Your task to perform on an android device: turn off location history Image 0: 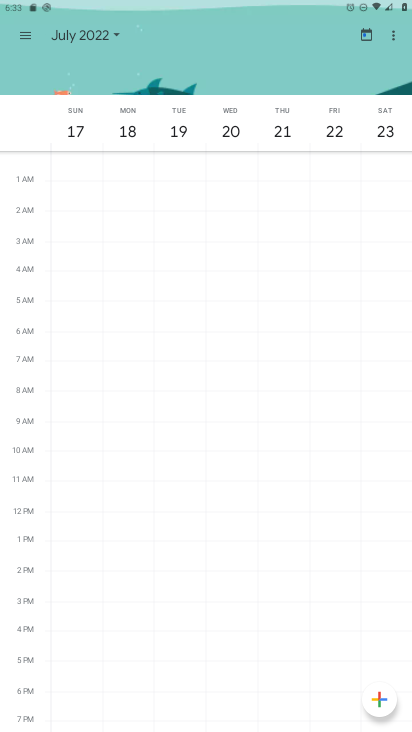
Step 0: press home button
Your task to perform on an android device: turn off location history Image 1: 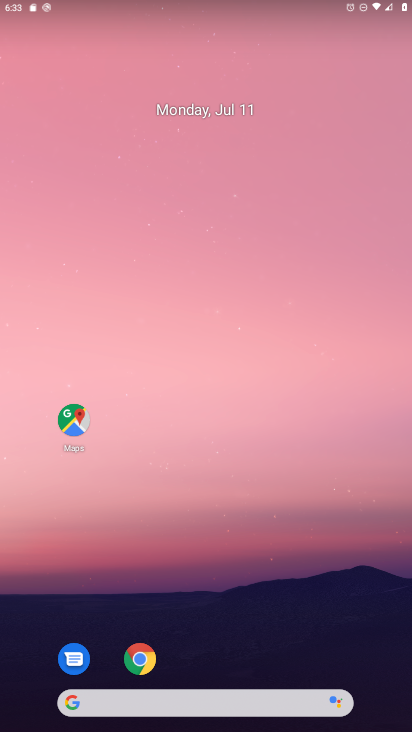
Step 1: click (73, 419)
Your task to perform on an android device: turn off location history Image 2: 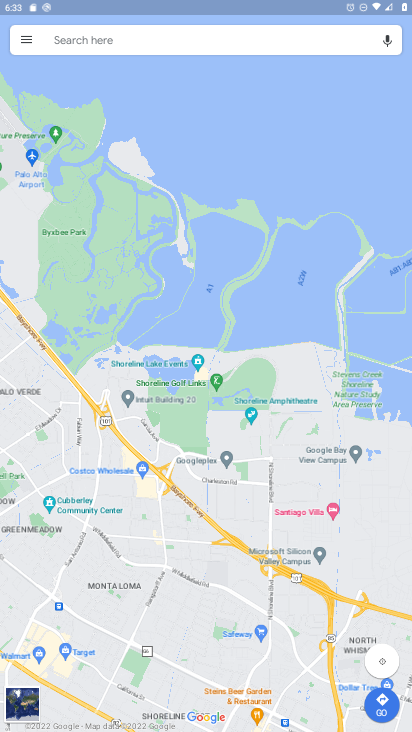
Step 2: click (25, 41)
Your task to perform on an android device: turn off location history Image 3: 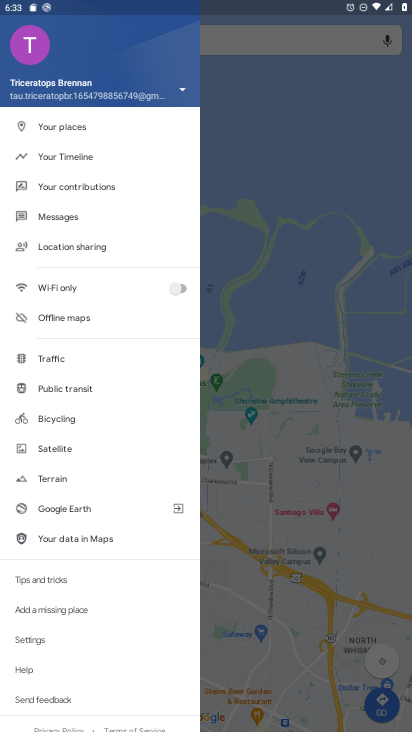
Step 3: click (33, 637)
Your task to perform on an android device: turn off location history Image 4: 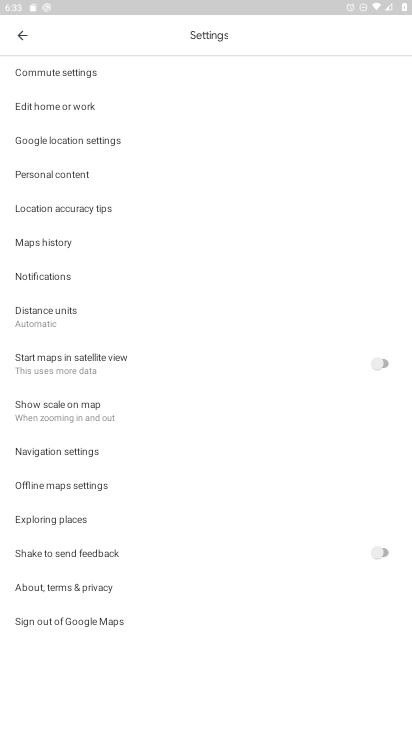
Step 4: click (45, 171)
Your task to perform on an android device: turn off location history Image 5: 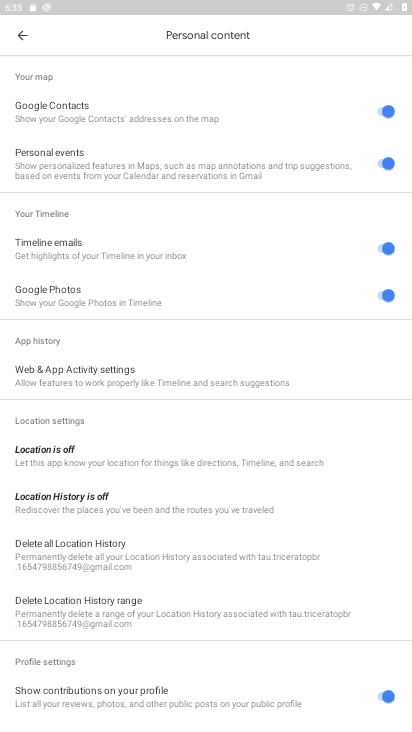
Step 5: task complete